Your task to perform on an android device: turn off javascript in the chrome app Image 0: 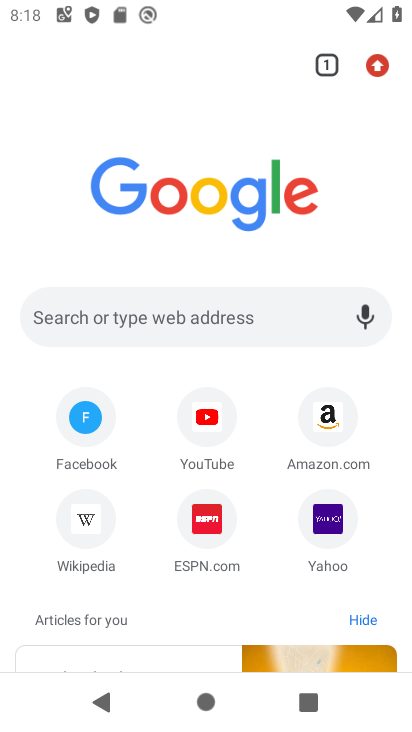
Step 0: click (374, 78)
Your task to perform on an android device: turn off javascript in the chrome app Image 1: 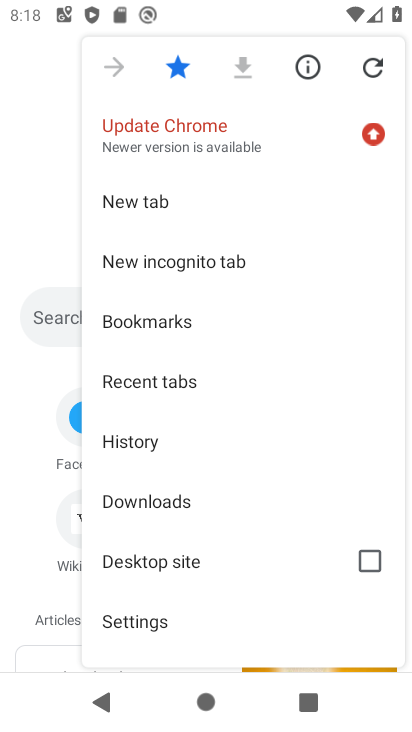
Step 1: click (178, 627)
Your task to perform on an android device: turn off javascript in the chrome app Image 2: 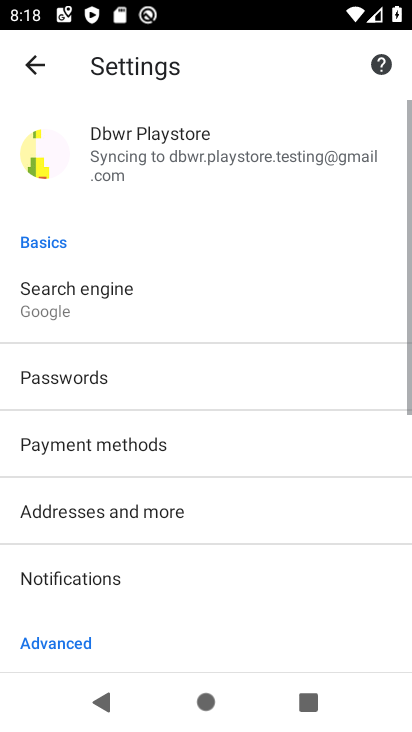
Step 2: drag from (140, 602) to (272, 193)
Your task to perform on an android device: turn off javascript in the chrome app Image 3: 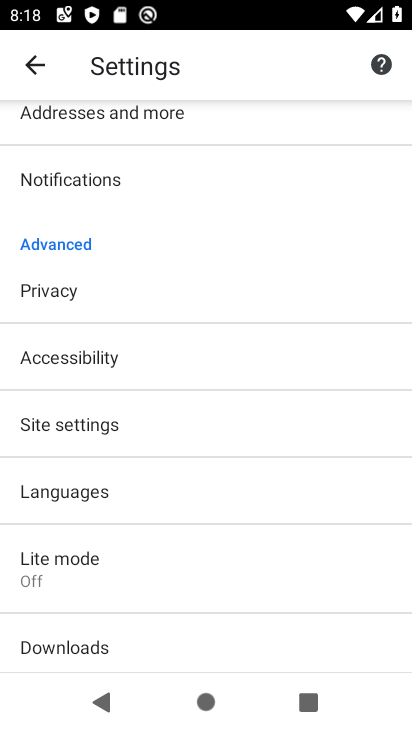
Step 3: click (168, 409)
Your task to perform on an android device: turn off javascript in the chrome app Image 4: 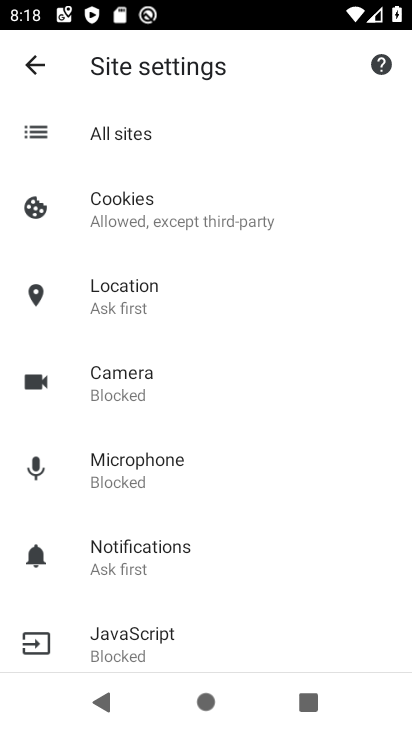
Step 4: click (196, 624)
Your task to perform on an android device: turn off javascript in the chrome app Image 5: 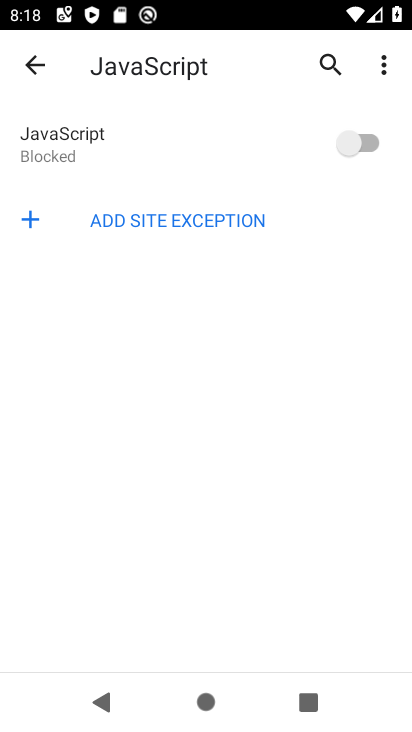
Step 5: task complete